Your task to perform on an android device: Go to wifi settings Image 0: 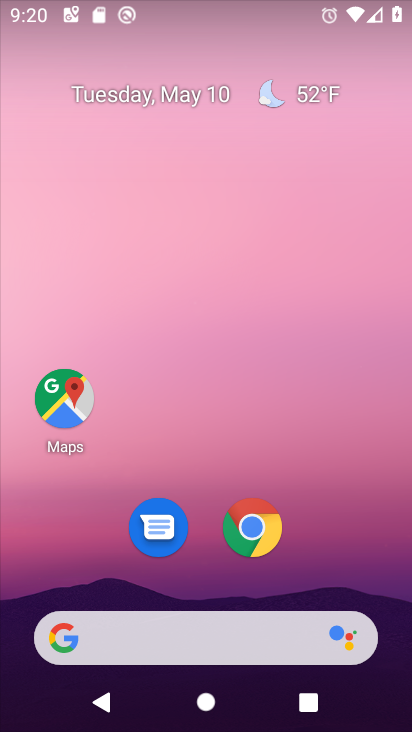
Step 0: drag from (319, 547) to (112, 104)
Your task to perform on an android device: Go to wifi settings Image 1: 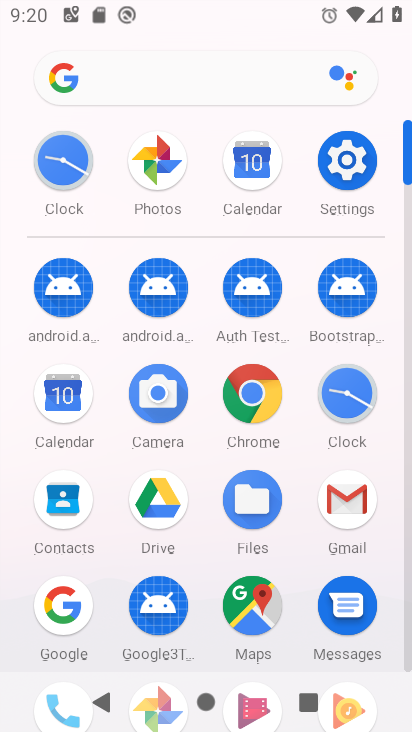
Step 1: click (349, 160)
Your task to perform on an android device: Go to wifi settings Image 2: 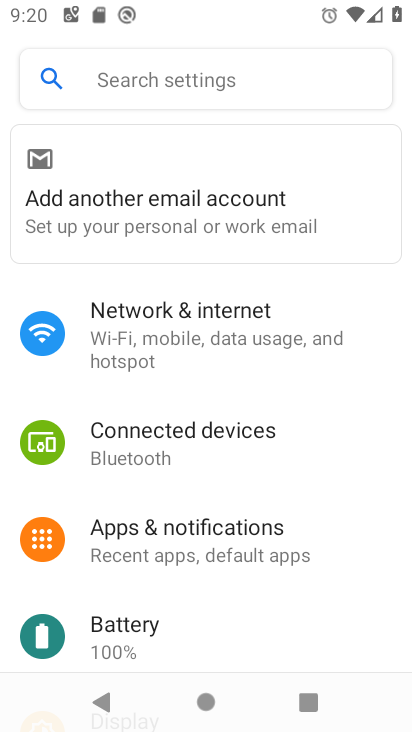
Step 2: click (177, 328)
Your task to perform on an android device: Go to wifi settings Image 3: 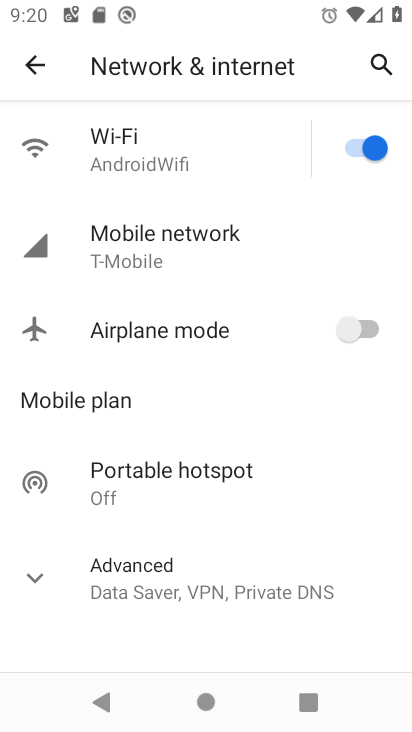
Step 3: click (85, 164)
Your task to perform on an android device: Go to wifi settings Image 4: 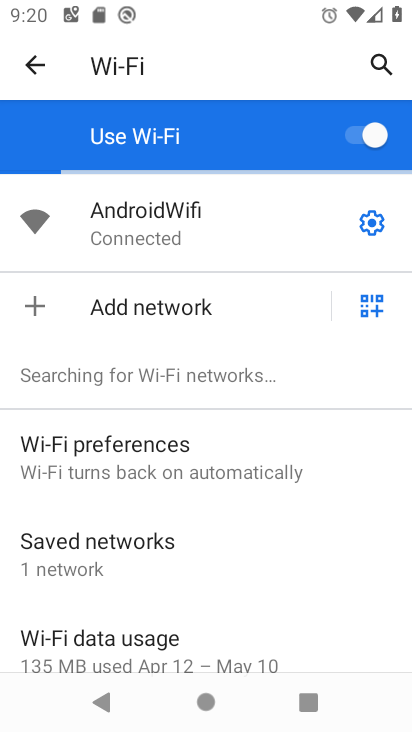
Step 4: task complete